Your task to perform on an android device: Go to Yahoo.com Image 0: 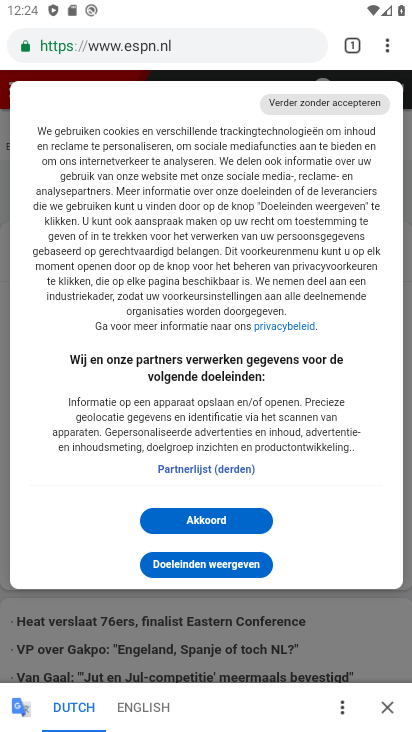
Step 0: press home button
Your task to perform on an android device: Go to Yahoo.com Image 1: 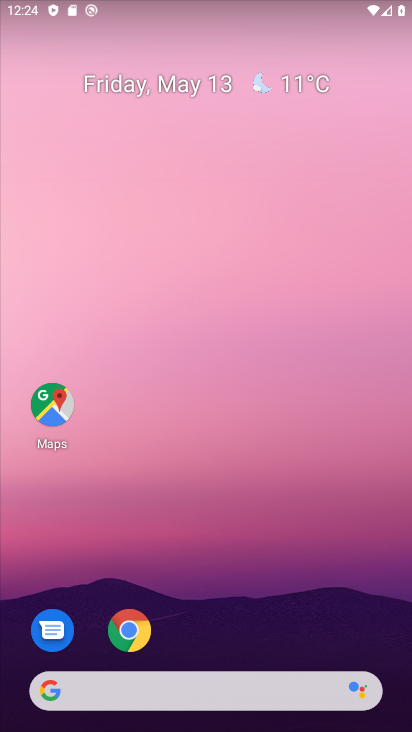
Step 1: click (143, 631)
Your task to perform on an android device: Go to Yahoo.com Image 2: 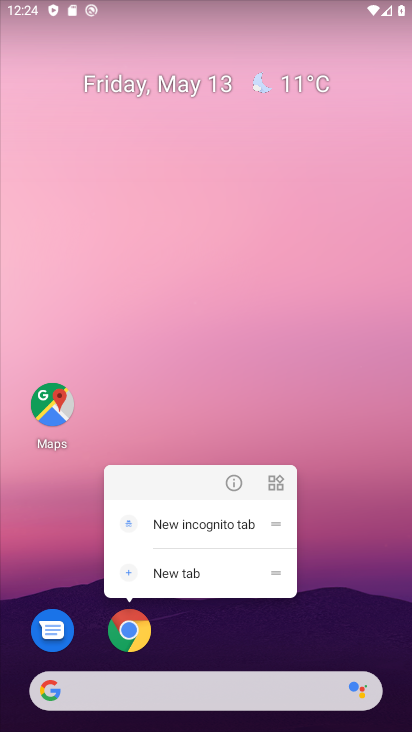
Step 2: click (128, 629)
Your task to perform on an android device: Go to Yahoo.com Image 3: 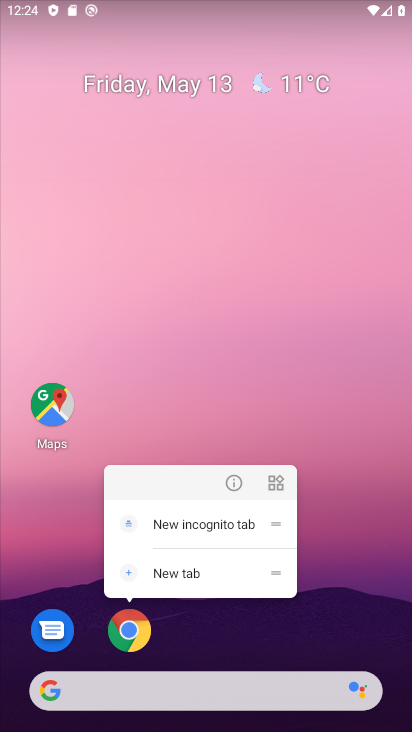
Step 3: click (127, 635)
Your task to perform on an android device: Go to Yahoo.com Image 4: 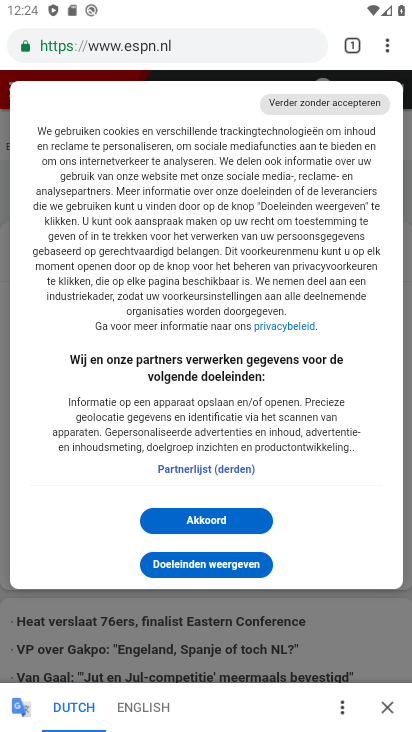
Step 4: click (152, 517)
Your task to perform on an android device: Go to Yahoo.com Image 5: 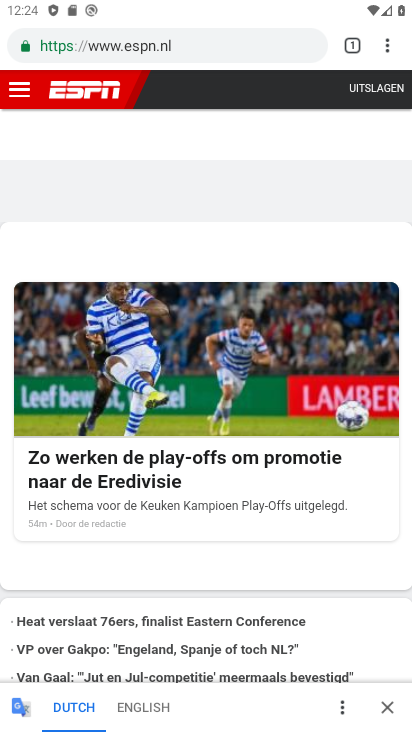
Step 5: click (355, 45)
Your task to perform on an android device: Go to Yahoo.com Image 6: 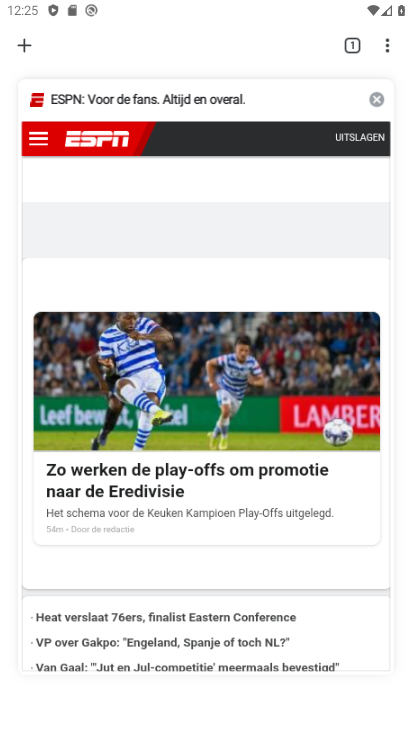
Step 6: click (374, 101)
Your task to perform on an android device: Go to Yahoo.com Image 7: 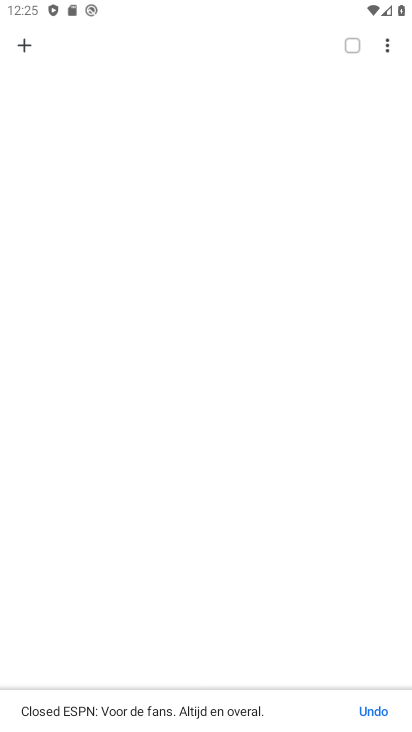
Step 7: click (26, 51)
Your task to perform on an android device: Go to Yahoo.com Image 8: 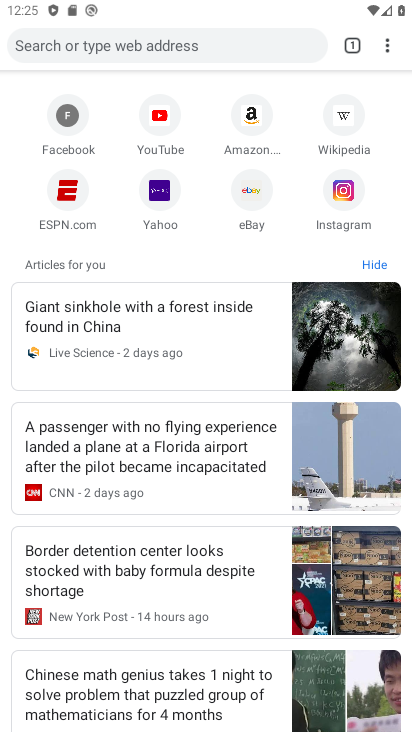
Step 8: click (161, 196)
Your task to perform on an android device: Go to Yahoo.com Image 9: 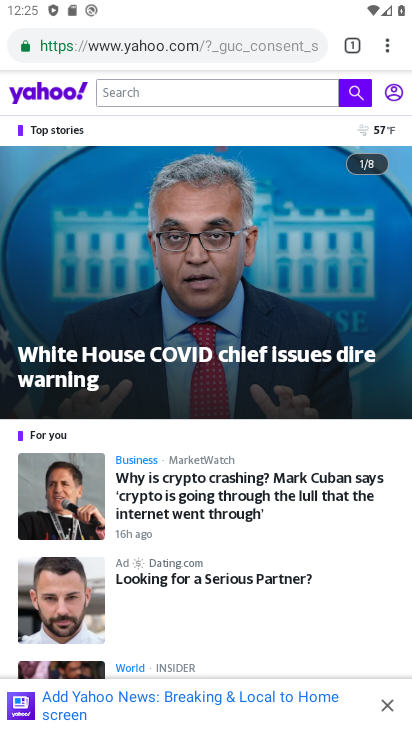
Step 9: task complete